Your task to perform on an android device: Check the weather Image 0: 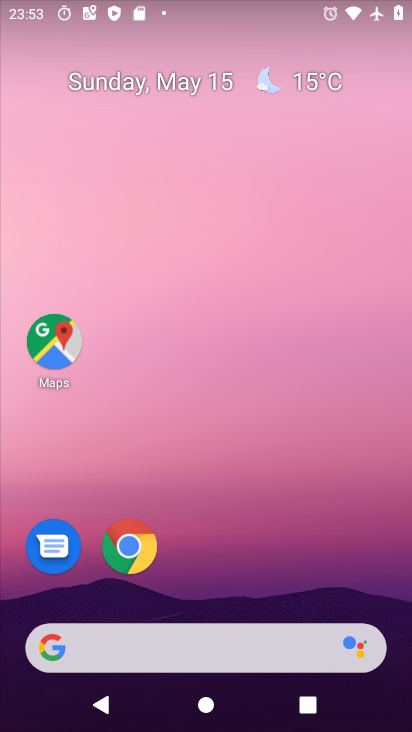
Step 0: drag from (266, 698) to (128, 45)
Your task to perform on an android device: Check the weather Image 1: 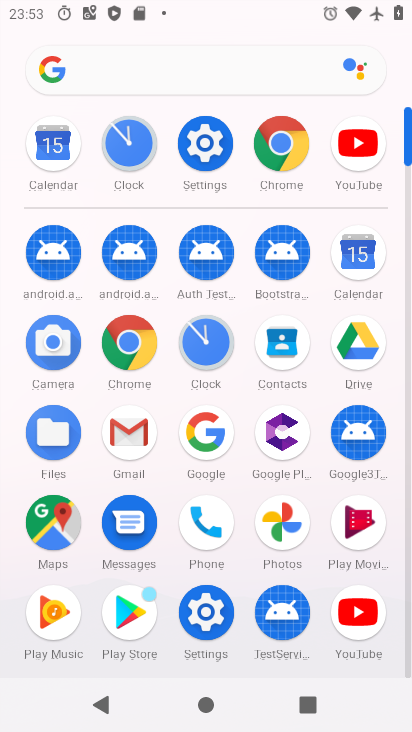
Step 1: press back button
Your task to perform on an android device: Check the weather Image 2: 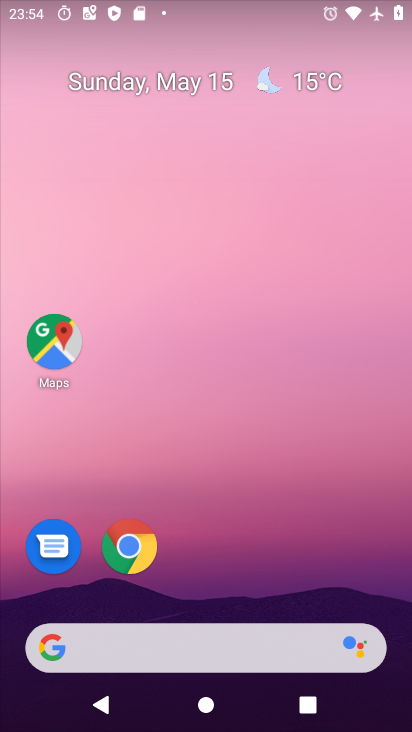
Step 2: drag from (4, 156) to (396, 330)
Your task to perform on an android device: Check the weather Image 3: 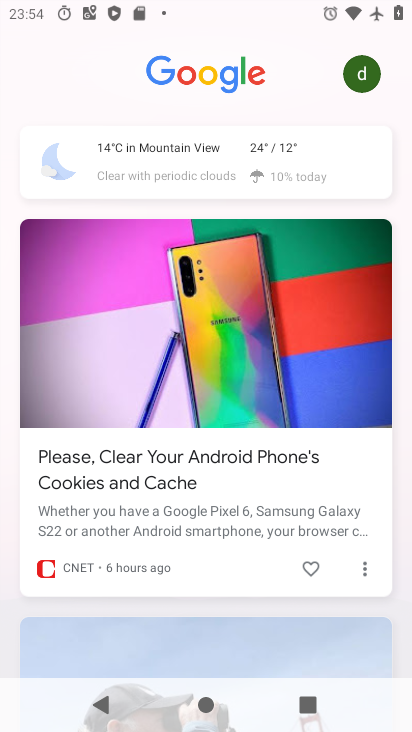
Step 3: click (179, 152)
Your task to perform on an android device: Check the weather Image 4: 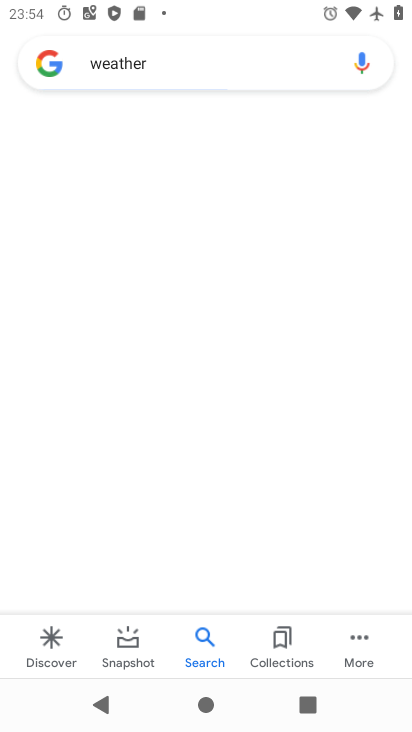
Step 4: click (181, 153)
Your task to perform on an android device: Check the weather Image 5: 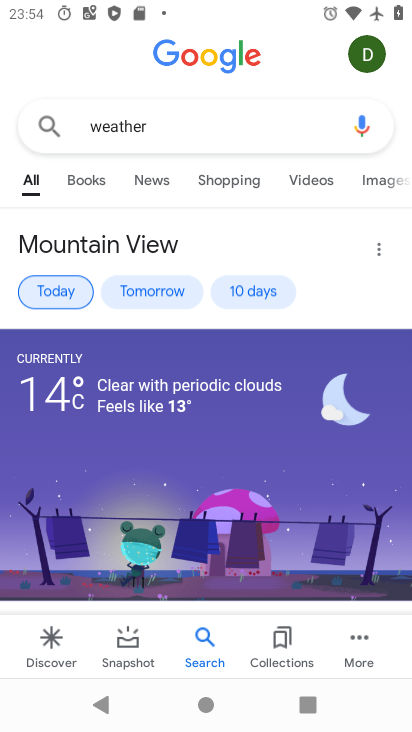
Step 5: click (150, 292)
Your task to perform on an android device: Check the weather Image 6: 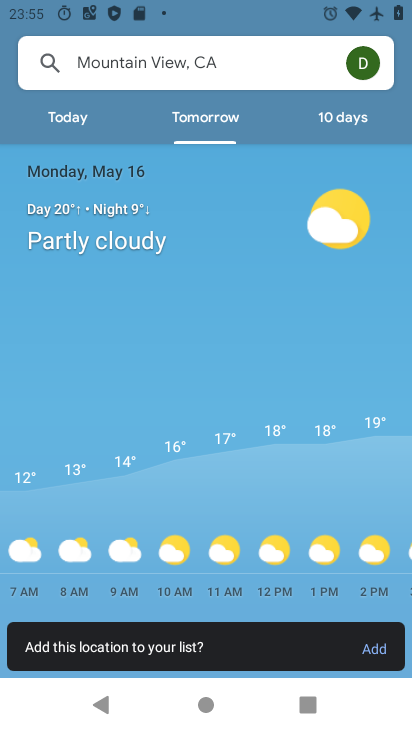
Step 6: task complete